Your task to perform on an android device: Go to CNN.com Image 0: 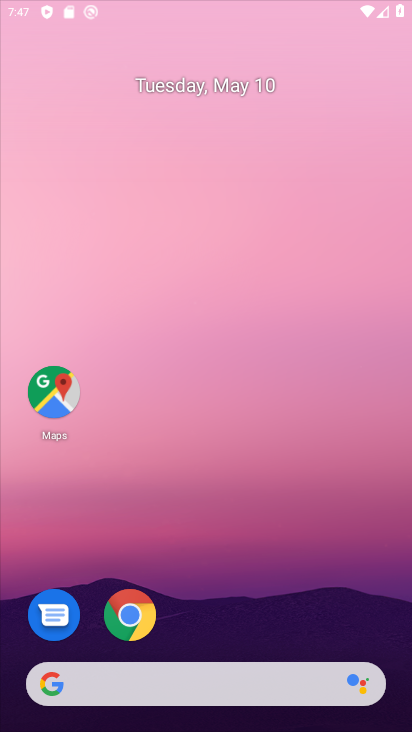
Step 0: click (247, 175)
Your task to perform on an android device: Go to CNN.com Image 1: 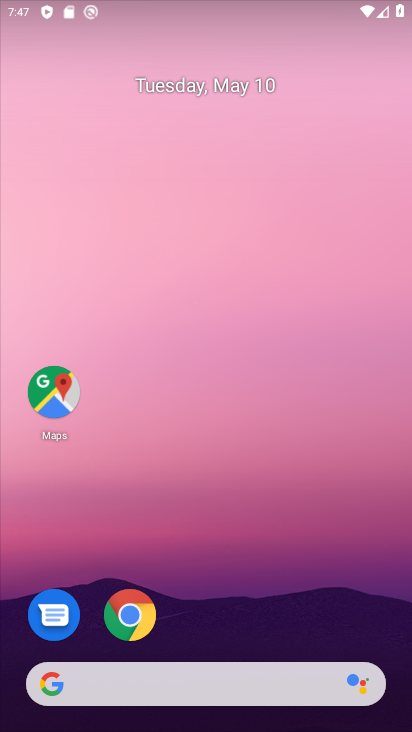
Step 1: drag from (199, 665) to (237, 218)
Your task to perform on an android device: Go to CNN.com Image 2: 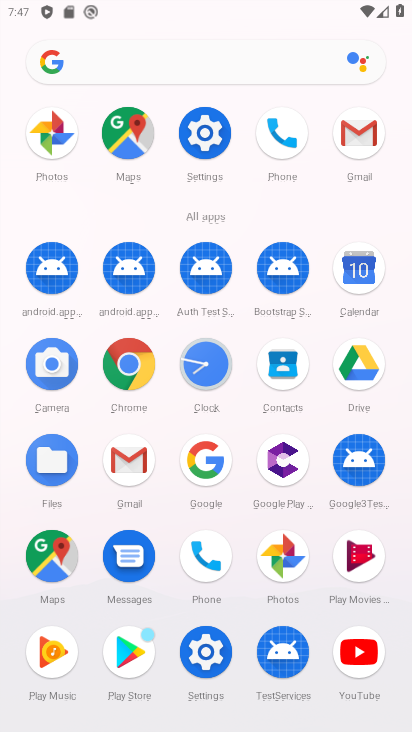
Step 2: click (249, 54)
Your task to perform on an android device: Go to CNN.com Image 3: 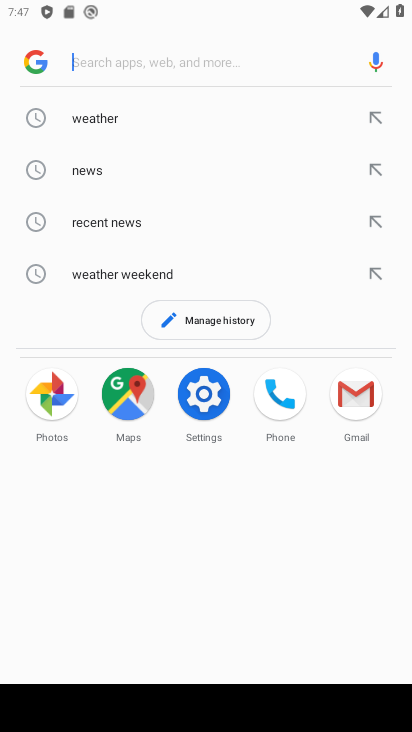
Step 3: type "cnn"
Your task to perform on an android device: Go to CNN.com Image 4: 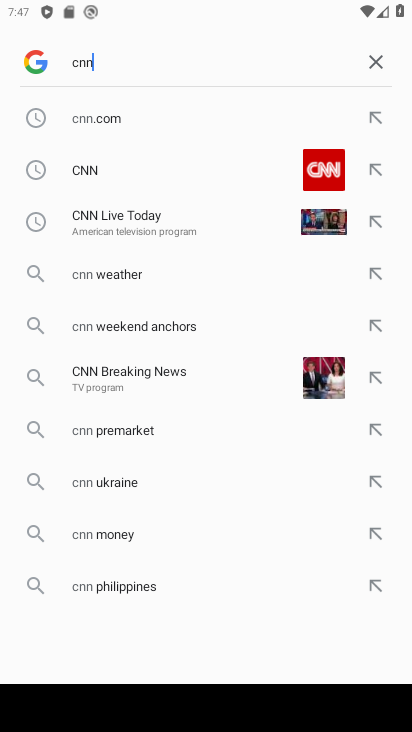
Step 4: click (106, 123)
Your task to perform on an android device: Go to CNN.com Image 5: 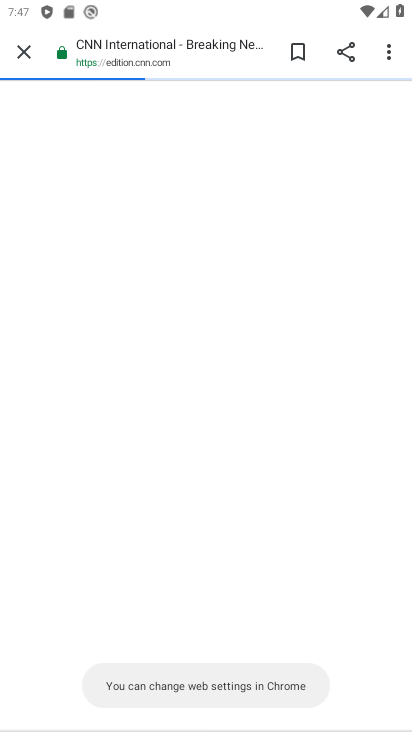
Step 5: task complete